Your task to perform on an android device: Open Google Image 0: 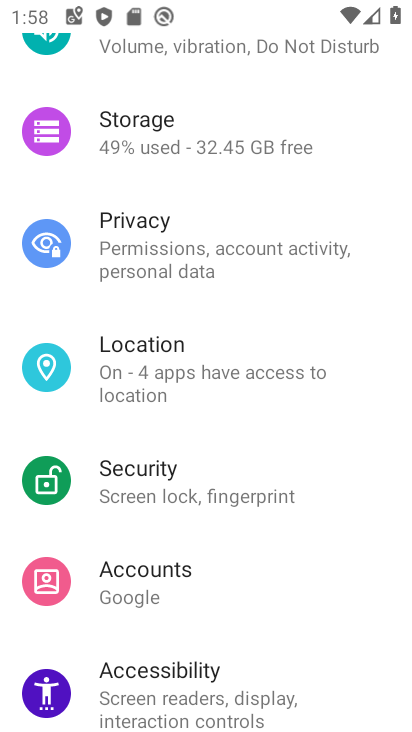
Step 0: press home button
Your task to perform on an android device: Open Google Image 1: 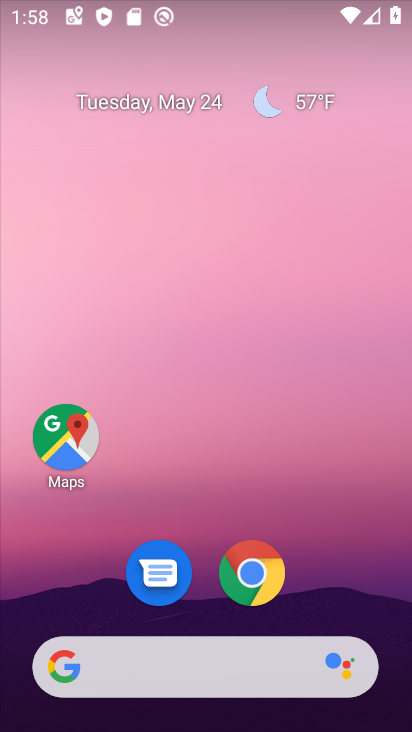
Step 1: drag from (361, 584) to (319, 275)
Your task to perform on an android device: Open Google Image 2: 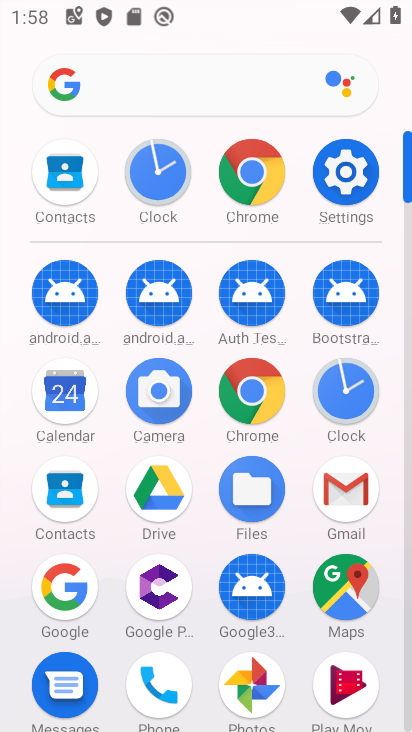
Step 2: click (58, 573)
Your task to perform on an android device: Open Google Image 3: 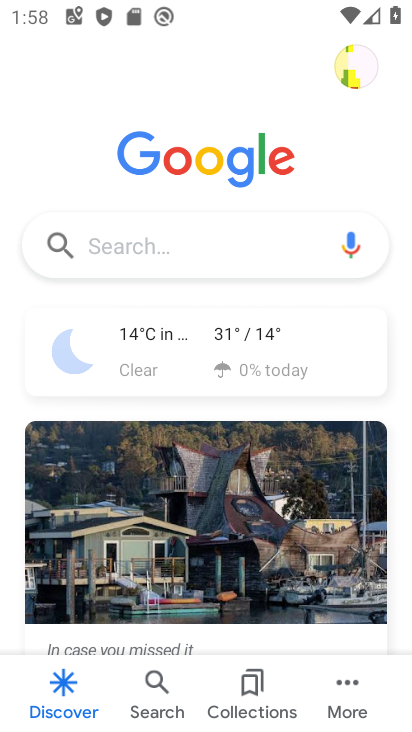
Step 3: task complete